Your task to perform on an android device: What's on my calendar today? Image 0: 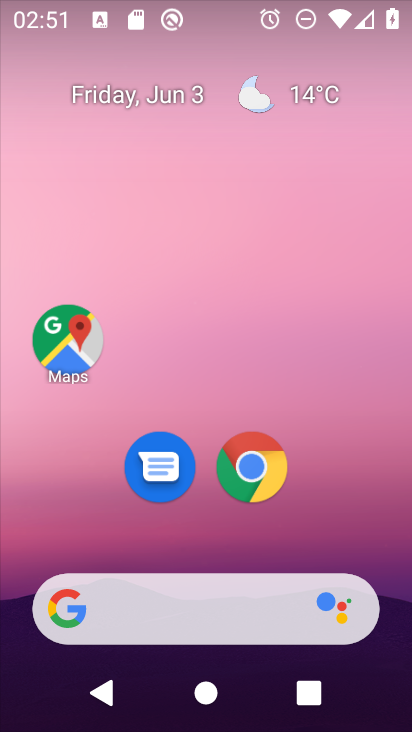
Step 0: drag from (401, 584) to (355, 119)
Your task to perform on an android device: What's on my calendar today? Image 1: 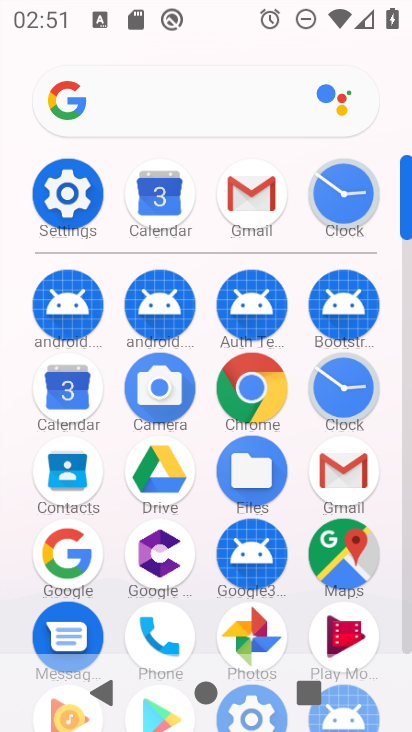
Step 1: click (71, 389)
Your task to perform on an android device: What's on my calendar today? Image 2: 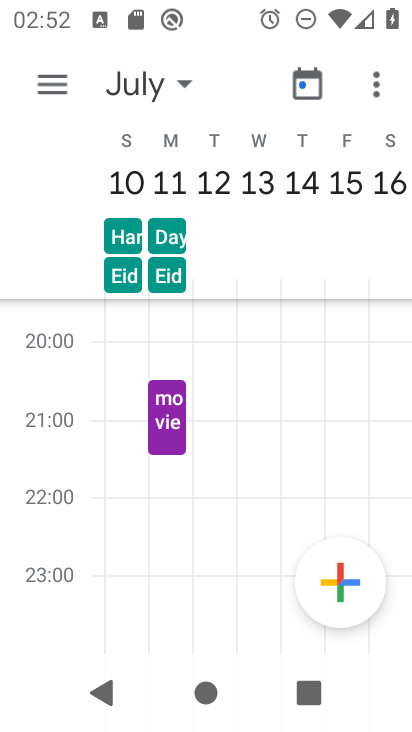
Step 2: click (41, 84)
Your task to perform on an android device: What's on my calendar today? Image 3: 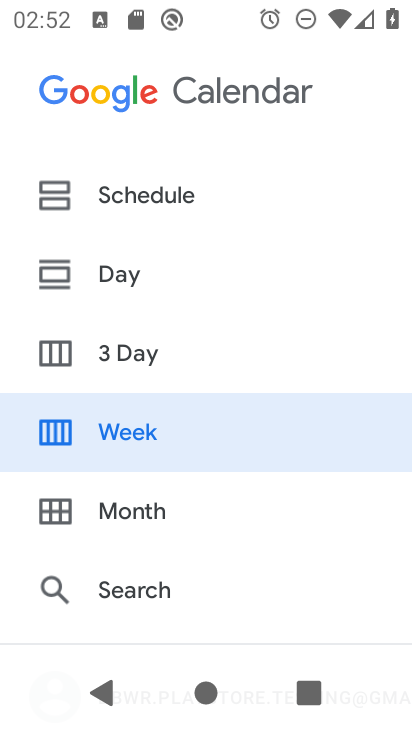
Step 3: click (124, 269)
Your task to perform on an android device: What's on my calendar today? Image 4: 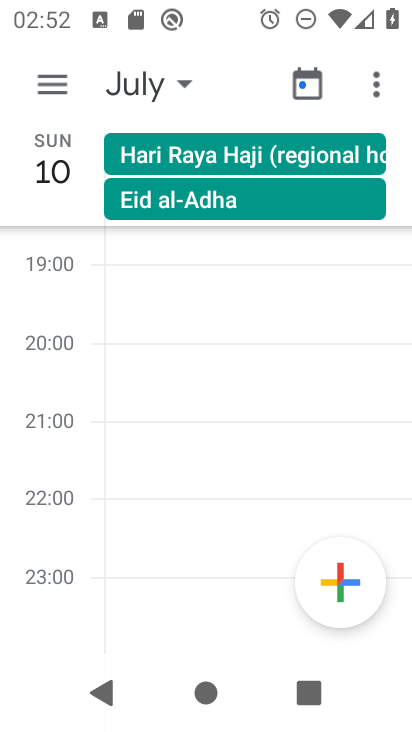
Step 4: click (183, 85)
Your task to perform on an android device: What's on my calendar today? Image 5: 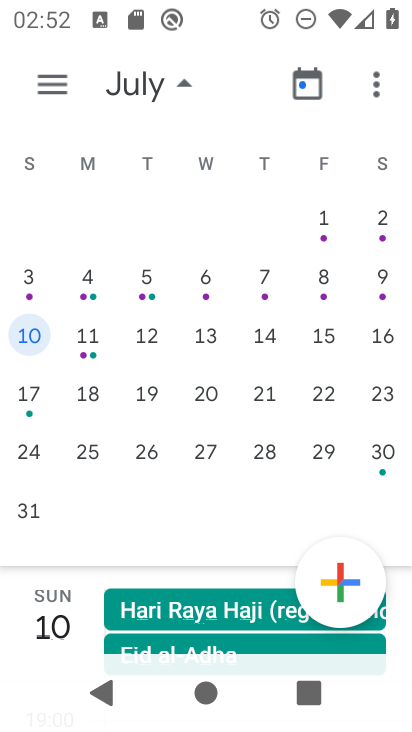
Step 5: drag from (31, 331) to (114, 330)
Your task to perform on an android device: What's on my calendar today? Image 6: 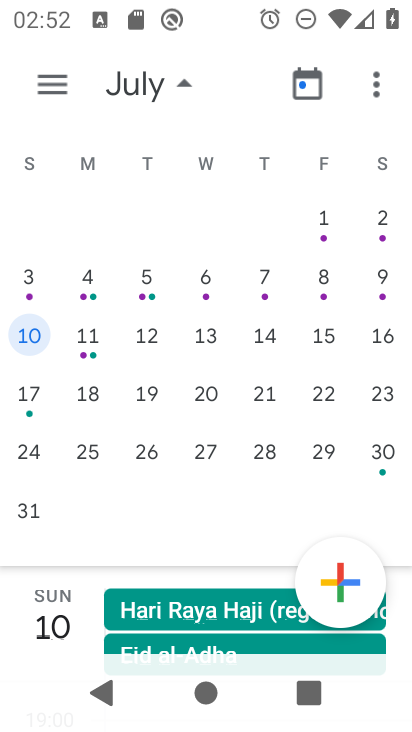
Step 6: drag from (140, 335) to (322, 327)
Your task to perform on an android device: What's on my calendar today? Image 7: 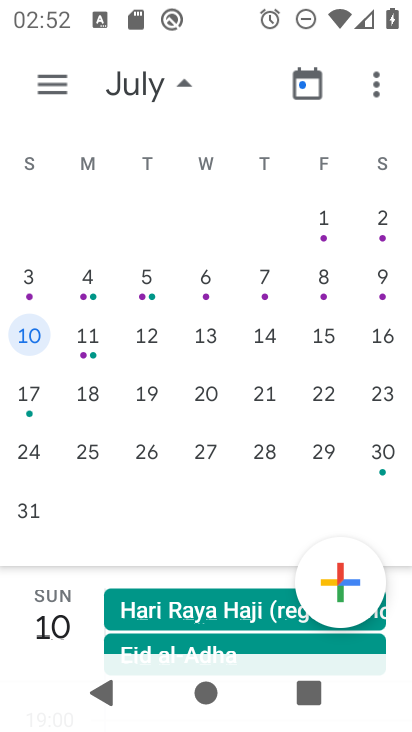
Step 7: drag from (84, 282) to (338, 271)
Your task to perform on an android device: What's on my calendar today? Image 8: 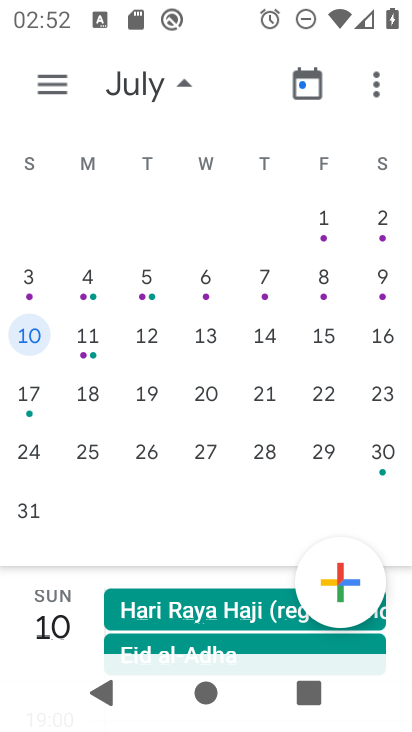
Step 8: drag from (87, 279) to (397, 264)
Your task to perform on an android device: What's on my calendar today? Image 9: 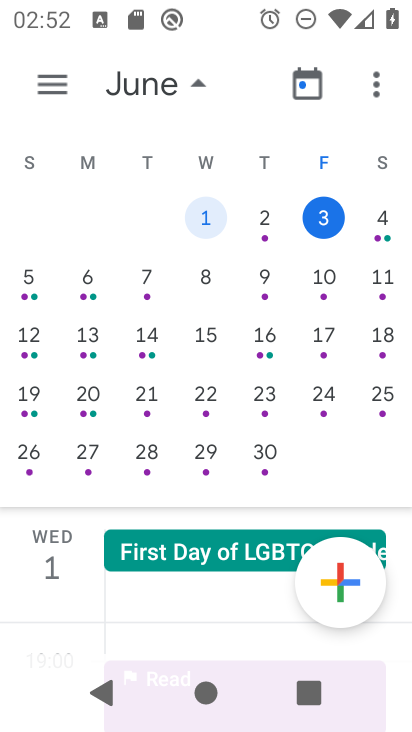
Step 9: click (314, 213)
Your task to perform on an android device: What's on my calendar today? Image 10: 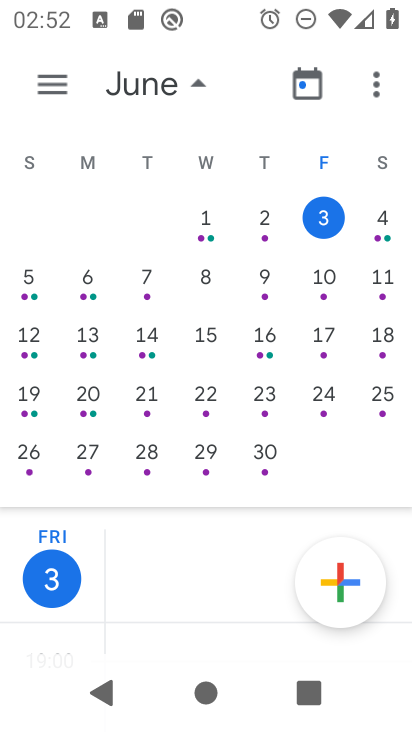
Step 10: task complete